Your task to perform on an android device: Go to Wikipedia Image 0: 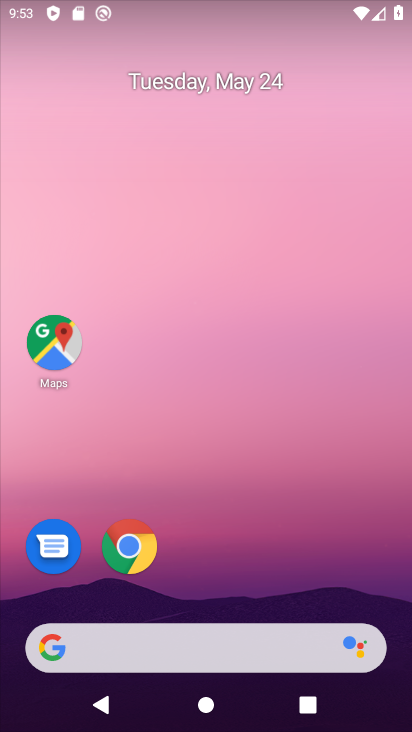
Step 0: click (134, 563)
Your task to perform on an android device: Go to Wikipedia Image 1: 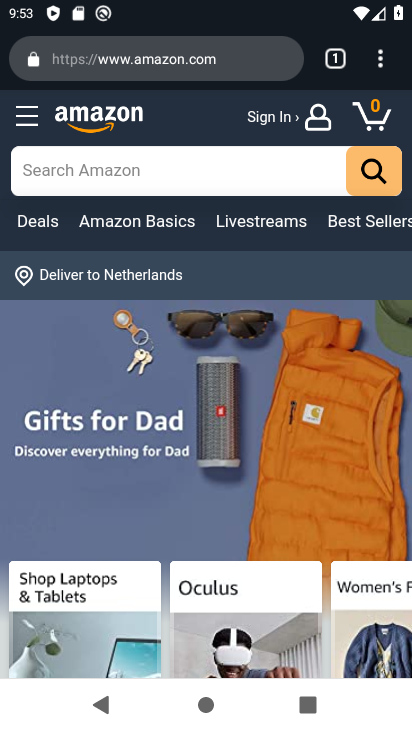
Step 1: click (340, 62)
Your task to perform on an android device: Go to Wikipedia Image 2: 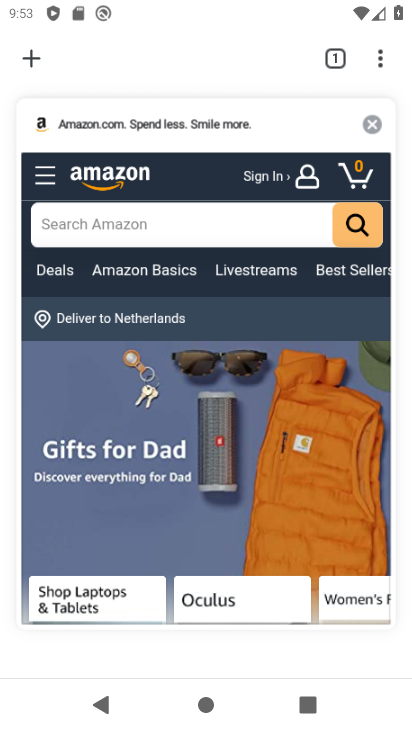
Step 2: click (28, 62)
Your task to perform on an android device: Go to Wikipedia Image 3: 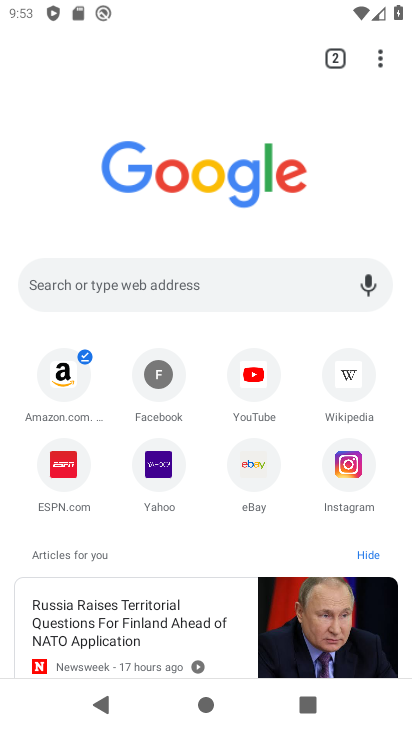
Step 3: click (354, 383)
Your task to perform on an android device: Go to Wikipedia Image 4: 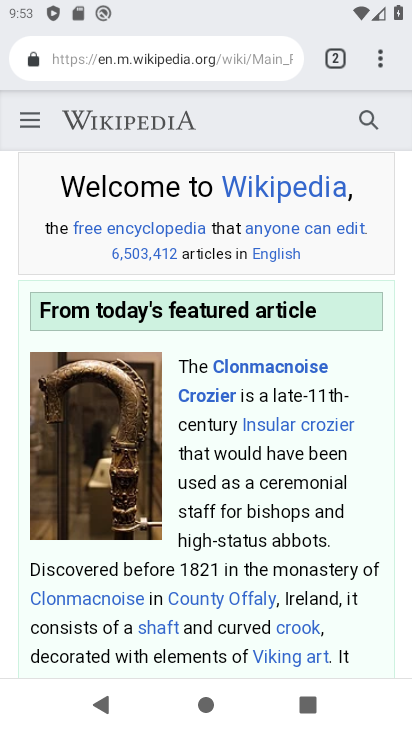
Step 4: task complete